Your task to perform on an android device: open a bookmark in the chrome app Image 0: 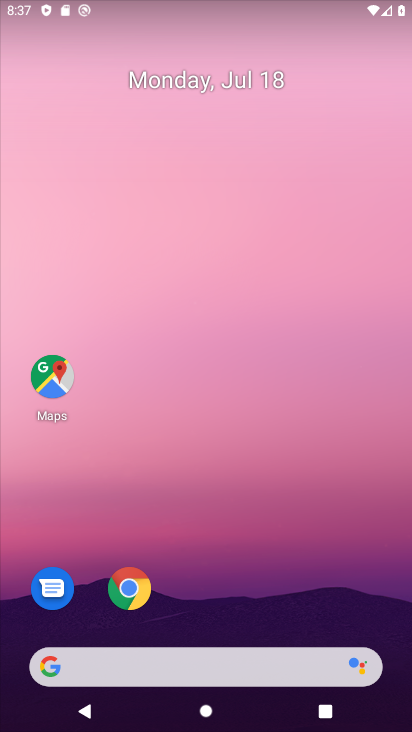
Step 0: drag from (206, 587) to (195, 20)
Your task to perform on an android device: open a bookmark in the chrome app Image 1: 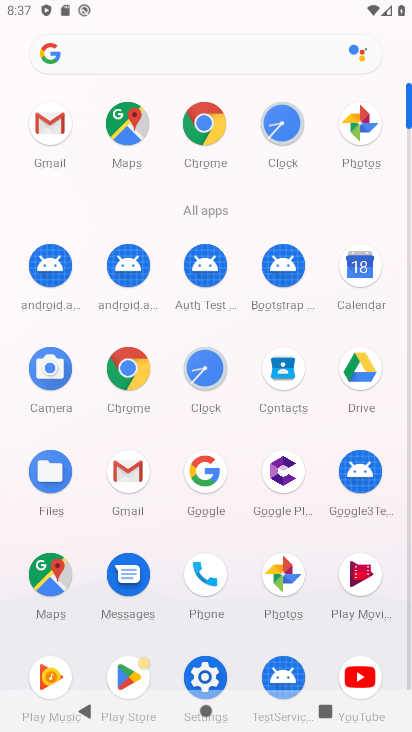
Step 1: click (123, 356)
Your task to perform on an android device: open a bookmark in the chrome app Image 2: 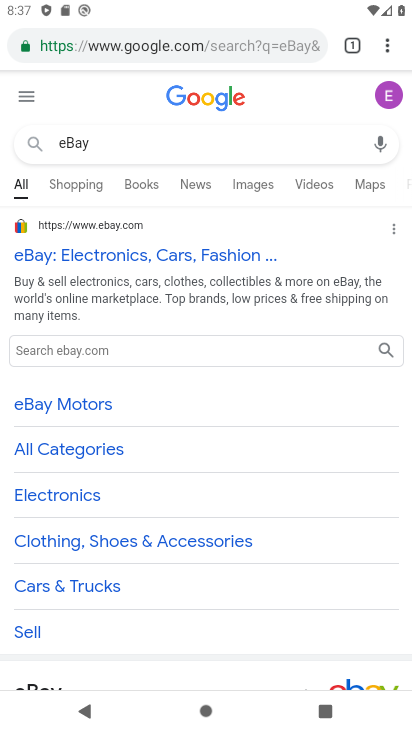
Step 2: drag from (387, 47) to (260, 178)
Your task to perform on an android device: open a bookmark in the chrome app Image 3: 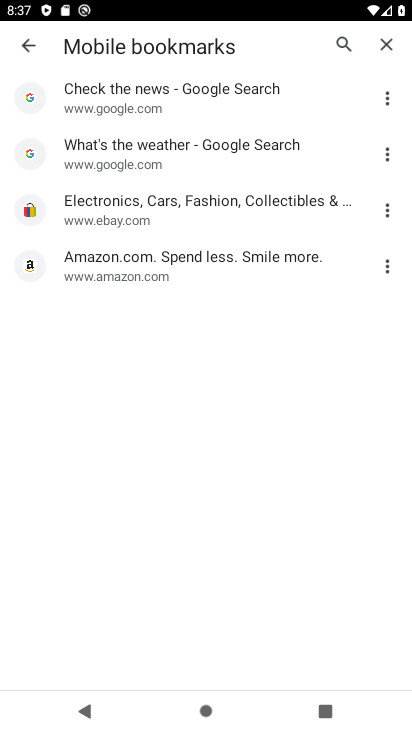
Step 3: click (24, 91)
Your task to perform on an android device: open a bookmark in the chrome app Image 4: 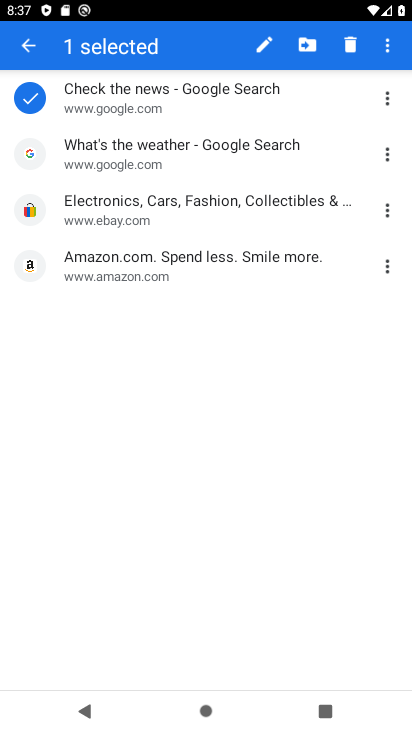
Step 4: click (24, 154)
Your task to perform on an android device: open a bookmark in the chrome app Image 5: 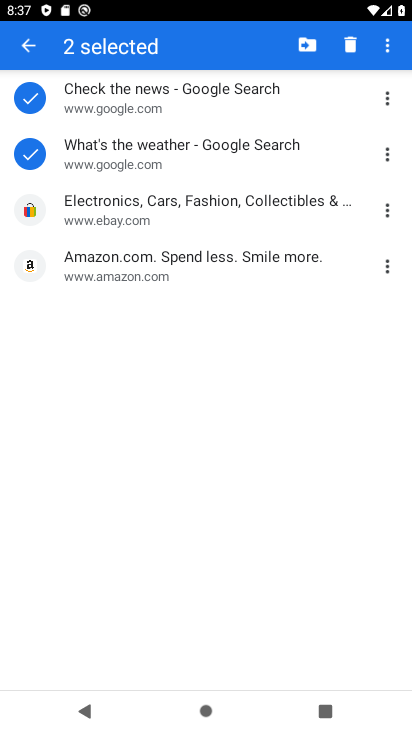
Step 5: click (28, 204)
Your task to perform on an android device: open a bookmark in the chrome app Image 6: 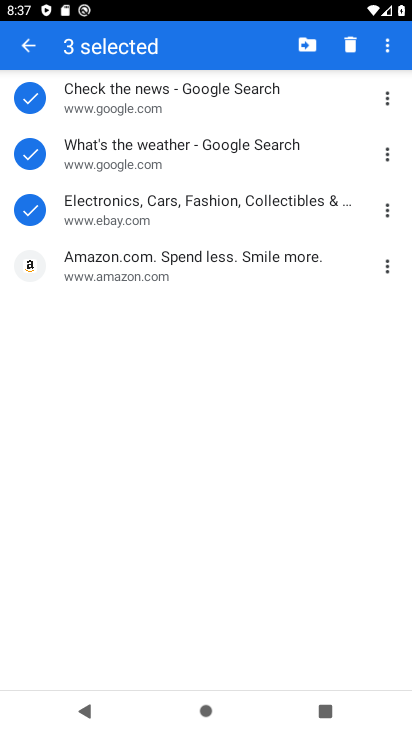
Step 6: click (26, 259)
Your task to perform on an android device: open a bookmark in the chrome app Image 7: 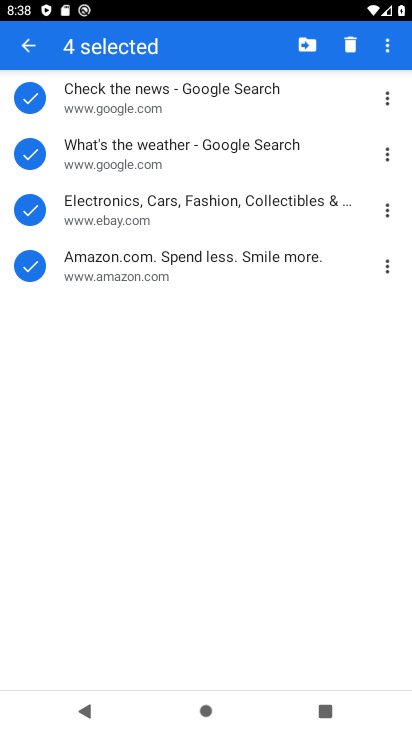
Step 7: click (355, 45)
Your task to perform on an android device: open a bookmark in the chrome app Image 8: 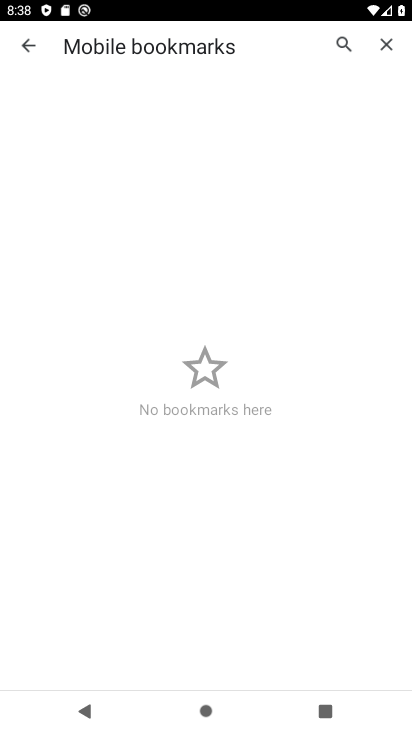
Step 8: task complete